Your task to perform on an android device: open the mobile data screen to see how much data has been used Image 0: 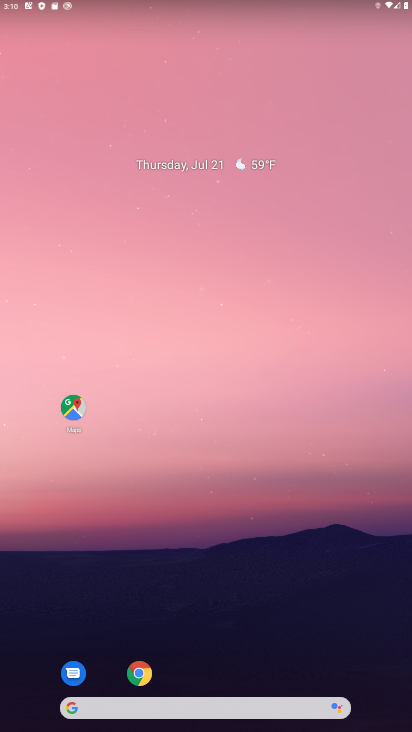
Step 0: drag from (248, 657) to (244, 1)
Your task to perform on an android device: open the mobile data screen to see how much data has been used Image 1: 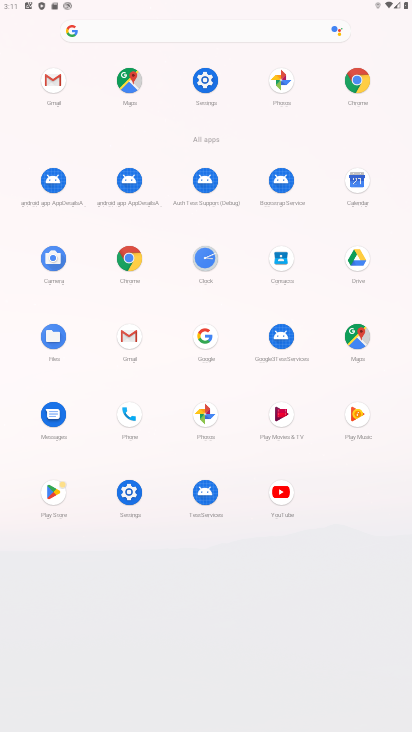
Step 1: click (206, 85)
Your task to perform on an android device: open the mobile data screen to see how much data has been used Image 2: 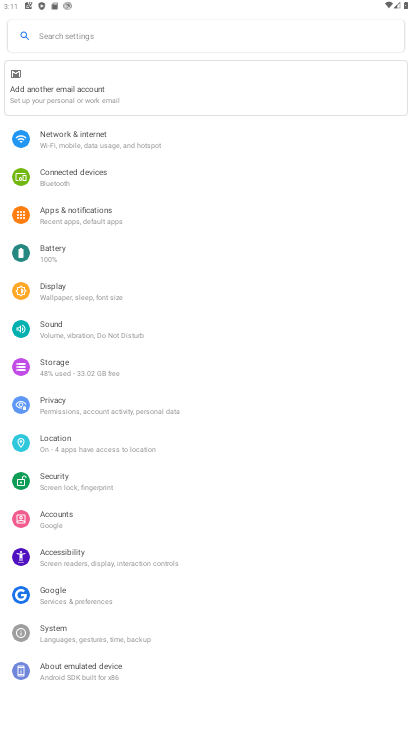
Step 2: click (131, 138)
Your task to perform on an android device: open the mobile data screen to see how much data has been used Image 3: 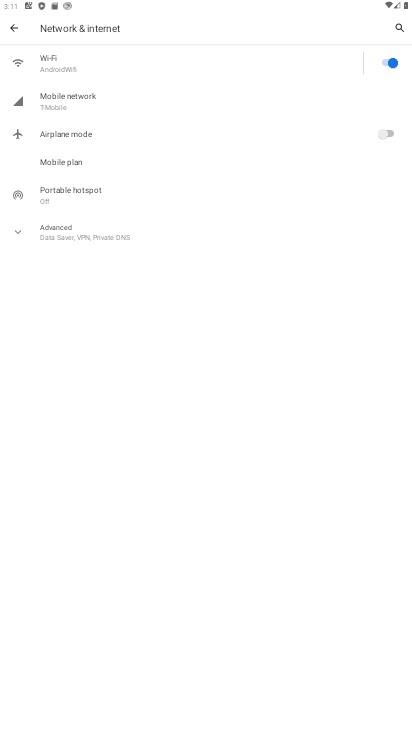
Step 3: click (121, 95)
Your task to perform on an android device: open the mobile data screen to see how much data has been used Image 4: 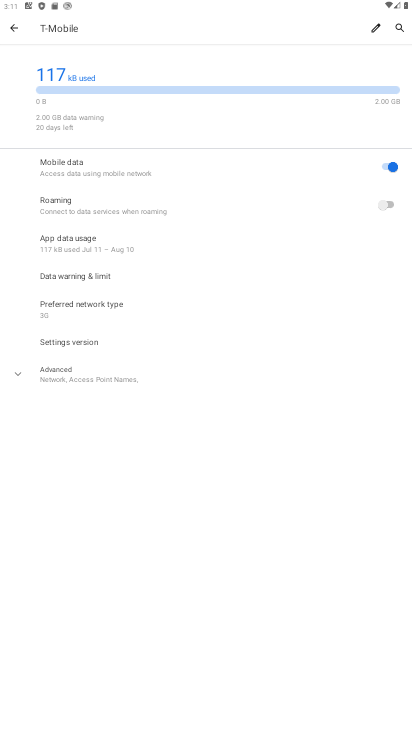
Step 4: task complete